Your task to perform on an android device: Go to battery settings Image 0: 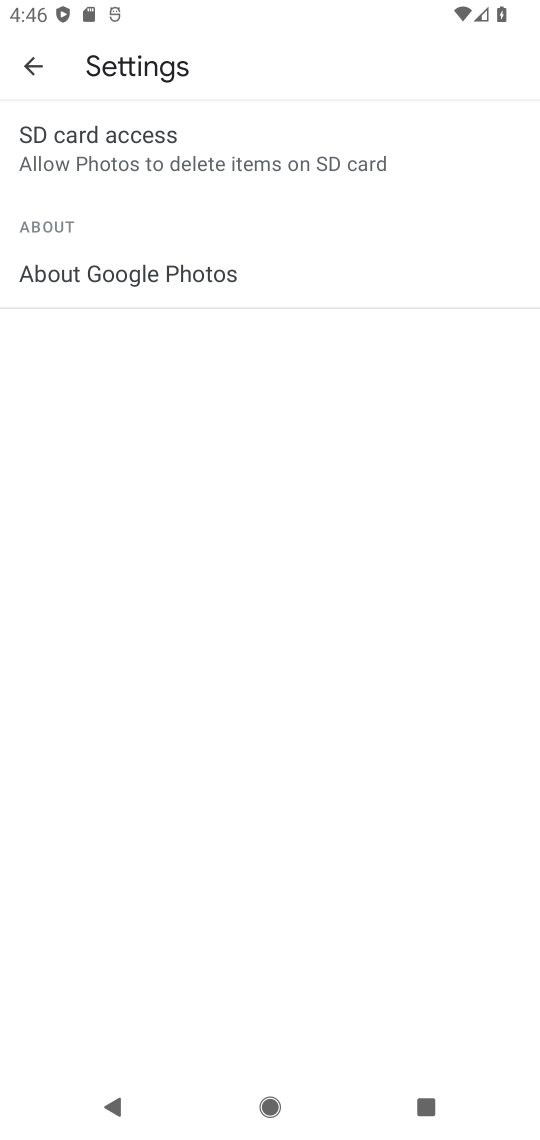
Step 0: press home button
Your task to perform on an android device: Go to battery settings Image 1: 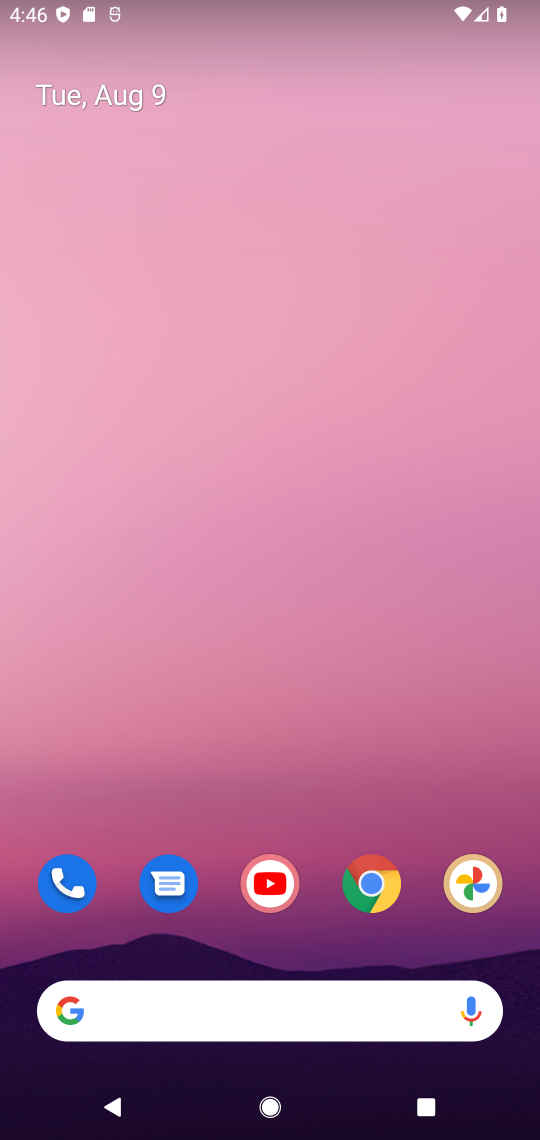
Step 1: drag from (313, 834) to (311, 186)
Your task to perform on an android device: Go to battery settings Image 2: 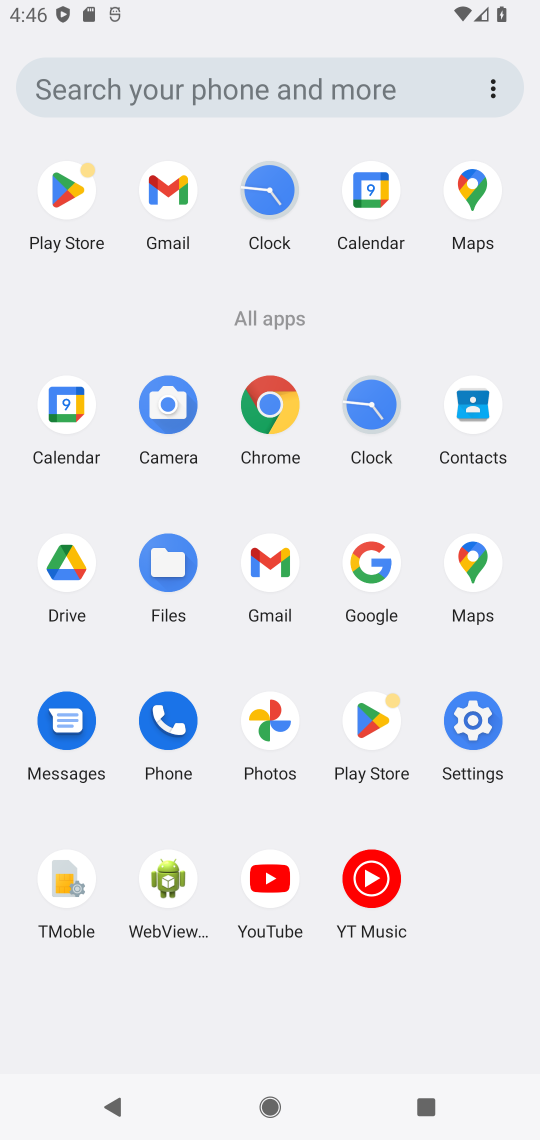
Step 2: click (458, 709)
Your task to perform on an android device: Go to battery settings Image 3: 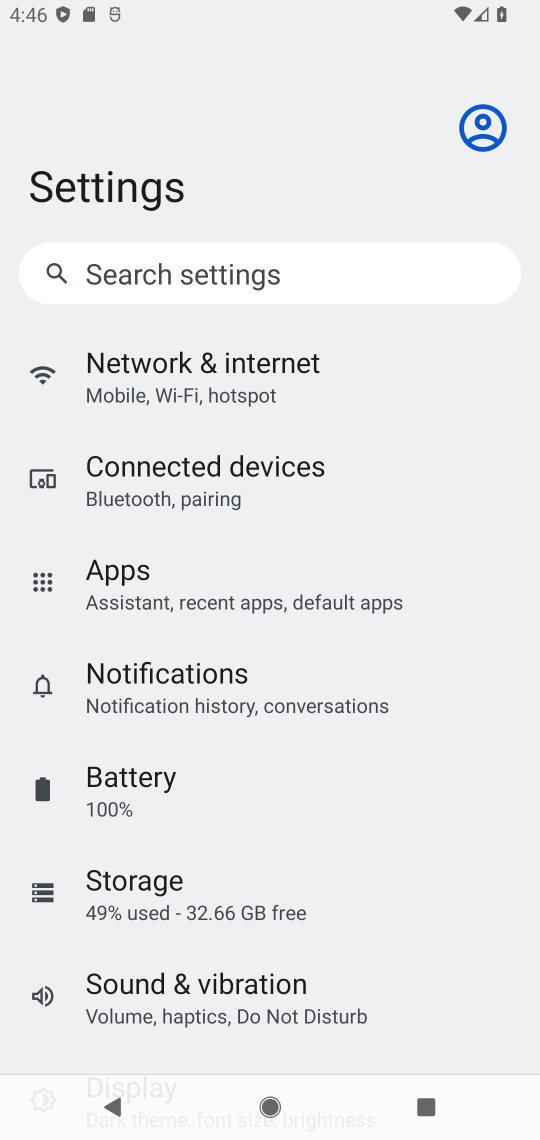
Step 3: click (186, 803)
Your task to perform on an android device: Go to battery settings Image 4: 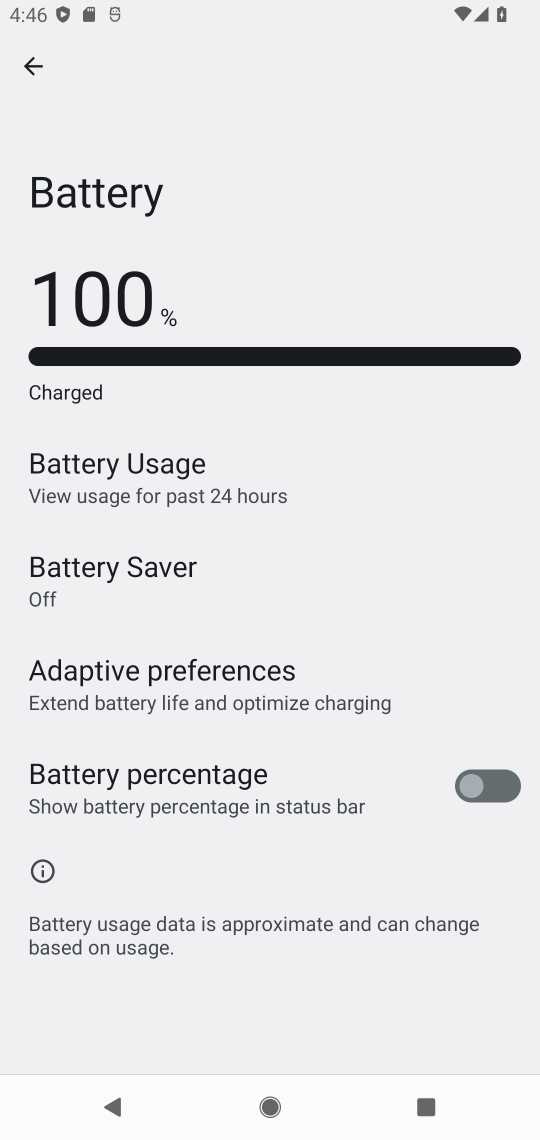
Step 4: task complete